Your task to perform on an android device: open device folders in google photos Image 0: 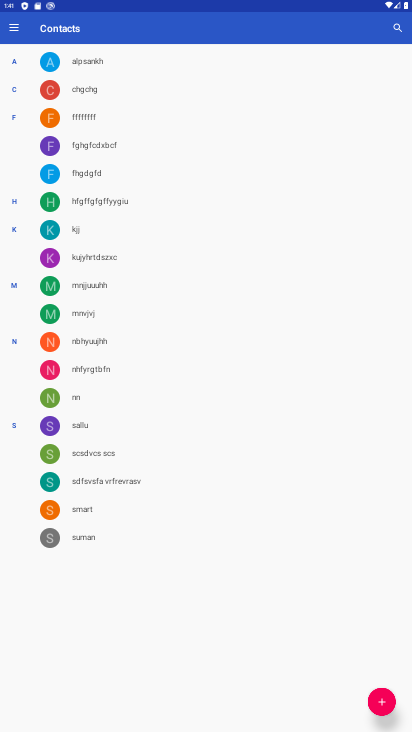
Step 0: press home button
Your task to perform on an android device: open device folders in google photos Image 1: 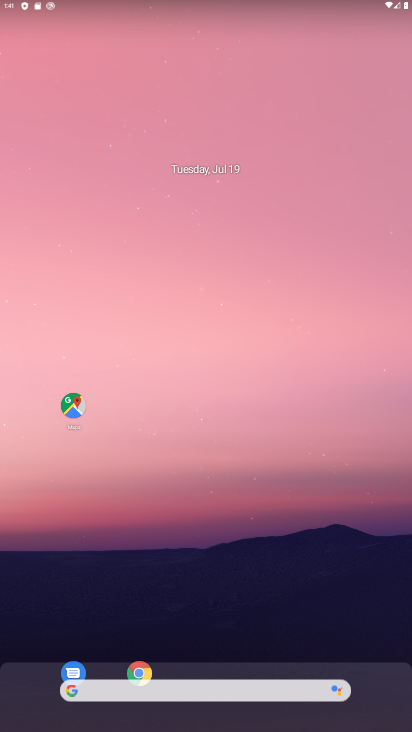
Step 1: drag from (175, 704) to (232, 173)
Your task to perform on an android device: open device folders in google photos Image 2: 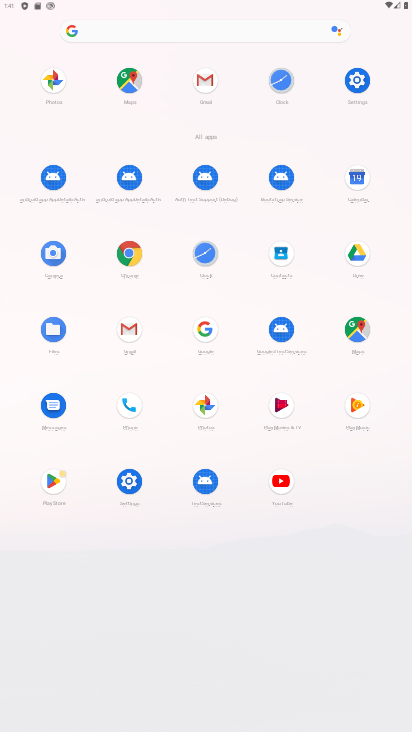
Step 2: click (204, 402)
Your task to perform on an android device: open device folders in google photos Image 3: 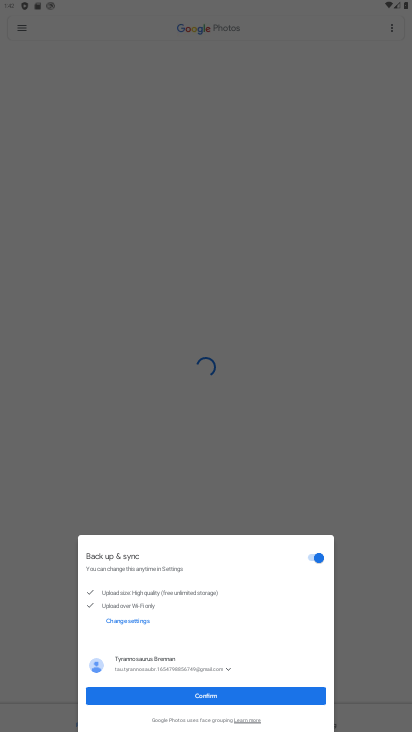
Step 3: click (202, 699)
Your task to perform on an android device: open device folders in google photos Image 4: 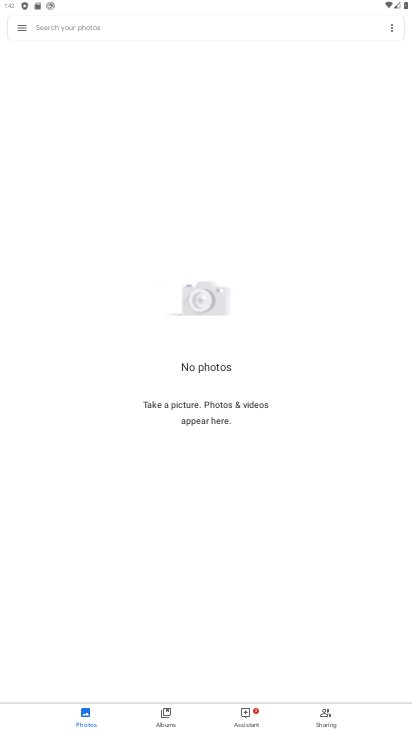
Step 4: click (21, 26)
Your task to perform on an android device: open device folders in google photos Image 5: 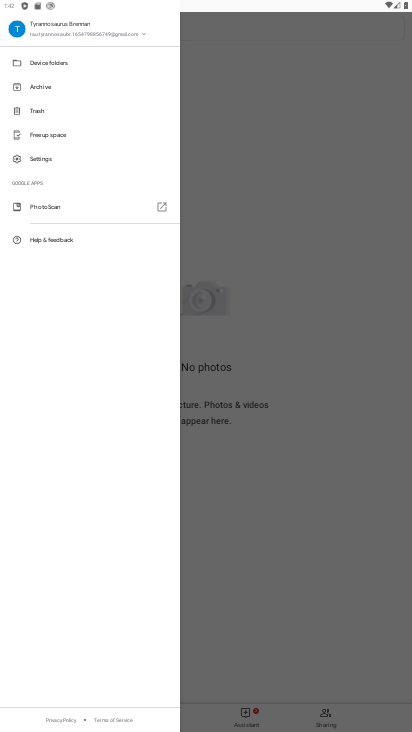
Step 5: click (41, 61)
Your task to perform on an android device: open device folders in google photos Image 6: 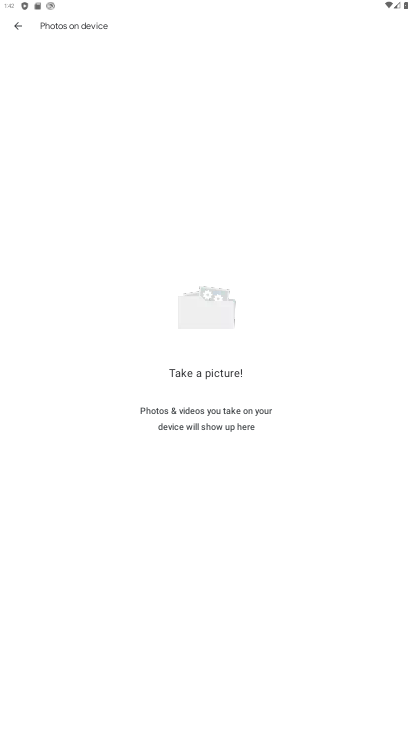
Step 6: task complete